Your task to perform on an android device: Show me the alarms in the clock app Image 0: 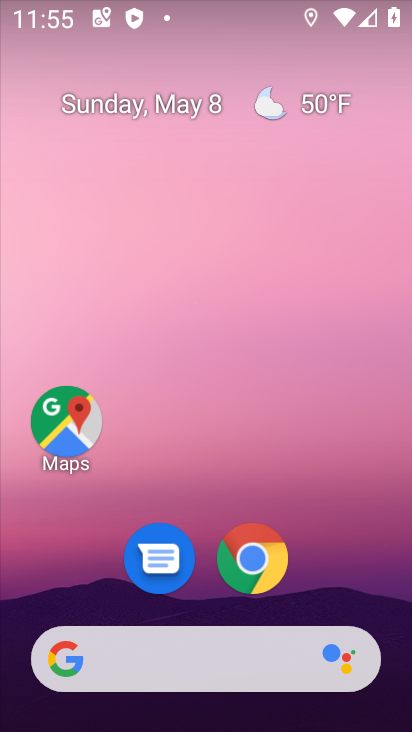
Step 0: drag from (197, 636) to (146, 142)
Your task to perform on an android device: Show me the alarms in the clock app Image 1: 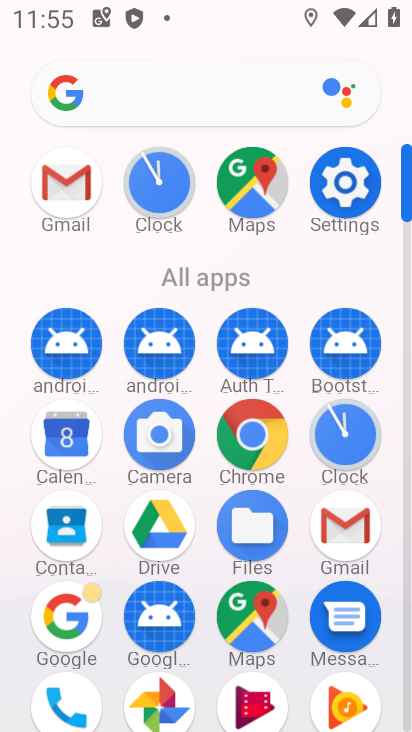
Step 1: click (349, 428)
Your task to perform on an android device: Show me the alarms in the clock app Image 2: 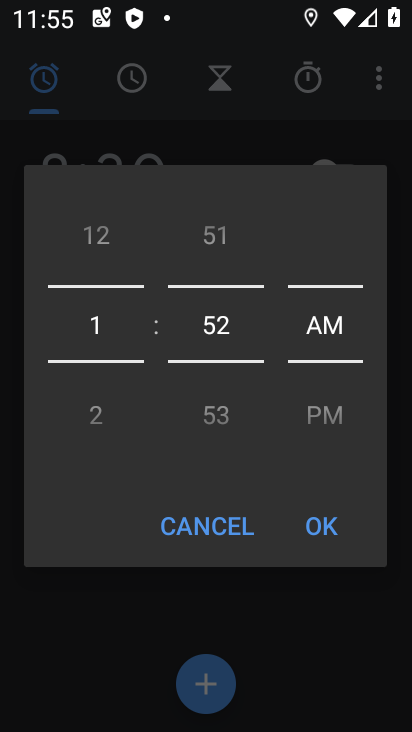
Step 2: click (309, 522)
Your task to perform on an android device: Show me the alarms in the clock app Image 3: 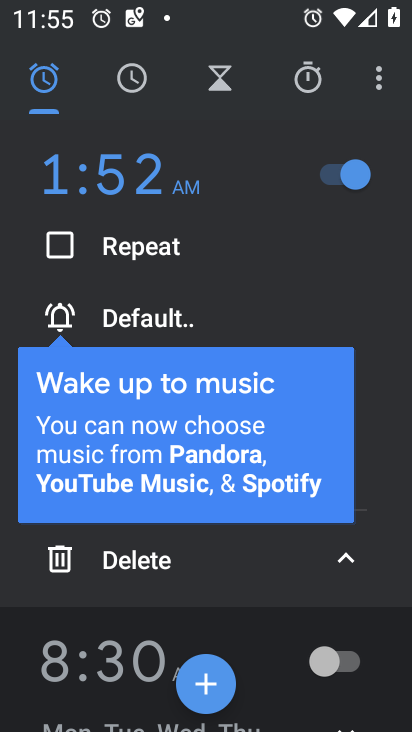
Step 3: task complete